Your task to perform on an android device: Open Google Chrome Image 0: 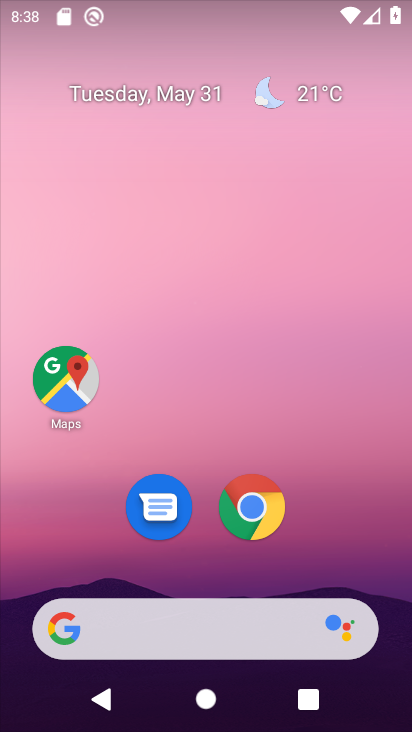
Step 0: drag from (270, 682) to (381, 3)
Your task to perform on an android device: Open Google Chrome Image 1: 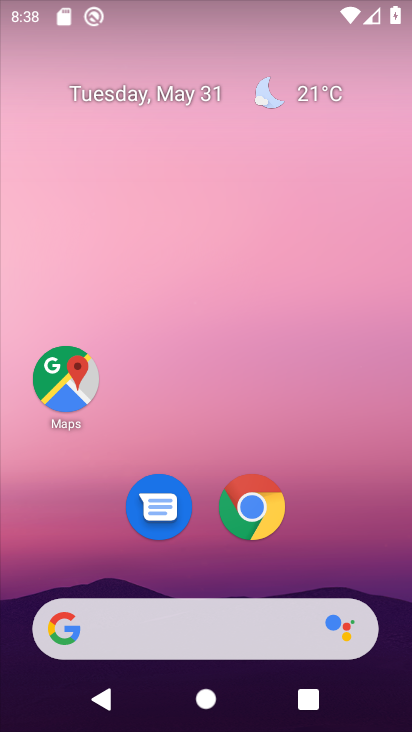
Step 1: click (341, 304)
Your task to perform on an android device: Open Google Chrome Image 2: 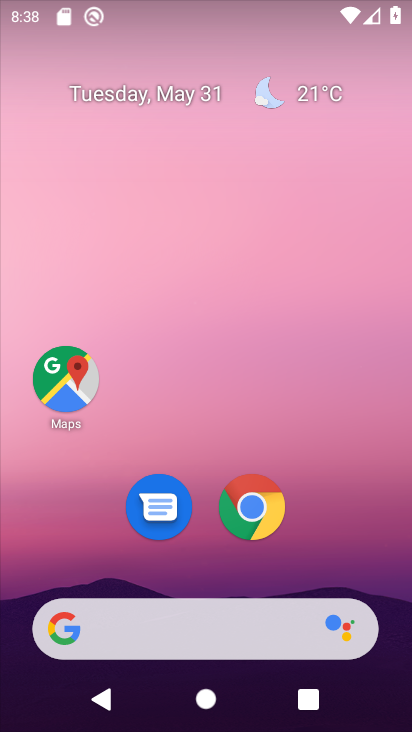
Step 2: drag from (266, 681) to (223, 217)
Your task to perform on an android device: Open Google Chrome Image 3: 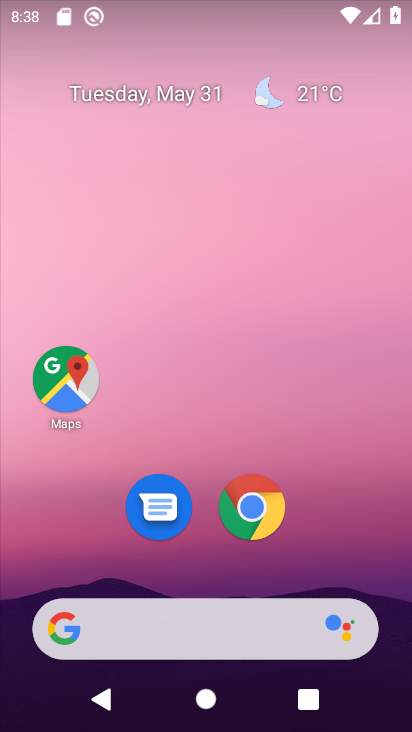
Step 3: click (151, 174)
Your task to perform on an android device: Open Google Chrome Image 4: 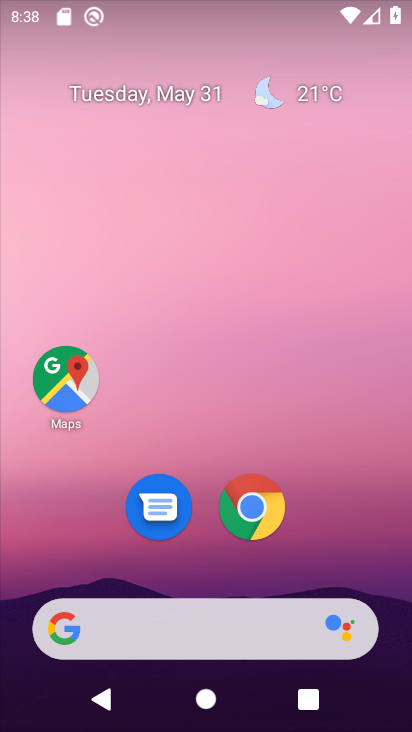
Step 4: drag from (239, 664) to (196, 12)
Your task to perform on an android device: Open Google Chrome Image 5: 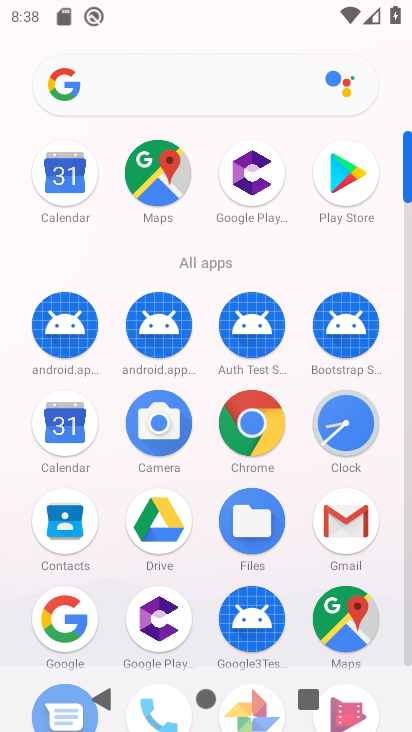
Step 5: click (261, 428)
Your task to perform on an android device: Open Google Chrome Image 6: 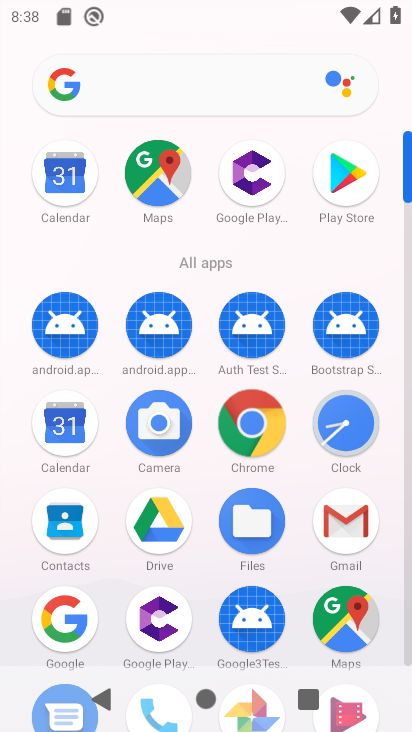
Step 6: click (261, 428)
Your task to perform on an android device: Open Google Chrome Image 7: 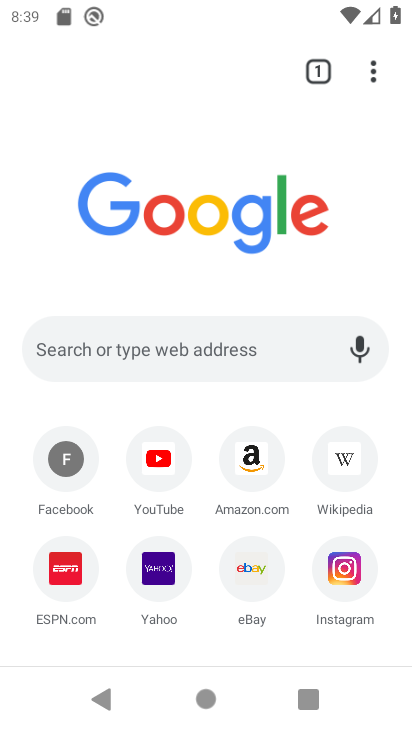
Step 7: task complete